Your task to perform on an android device: change alarm snooze length Image 0: 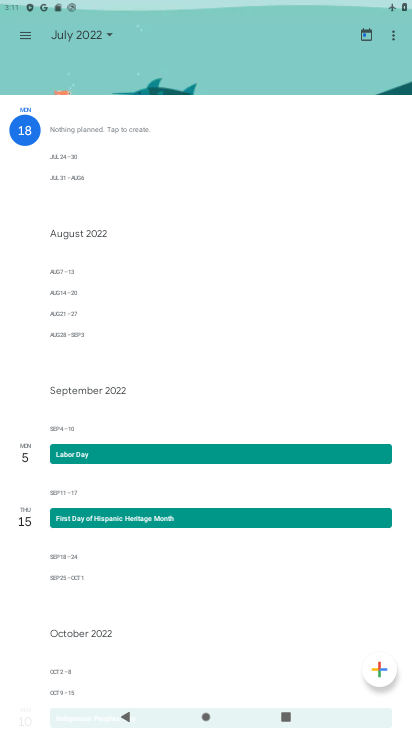
Step 0: press home button
Your task to perform on an android device: change alarm snooze length Image 1: 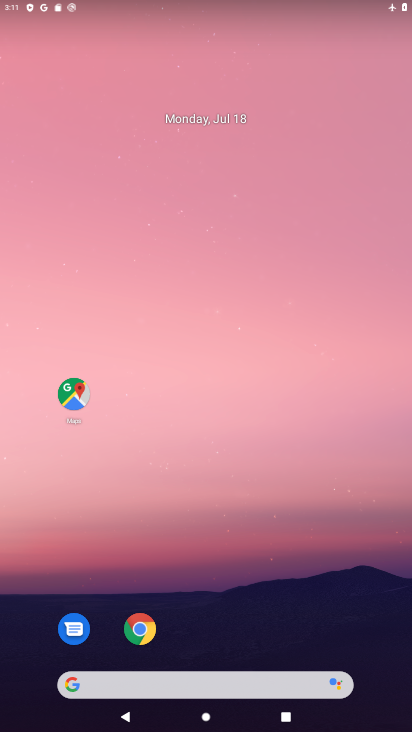
Step 1: drag from (204, 653) to (180, 150)
Your task to perform on an android device: change alarm snooze length Image 2: 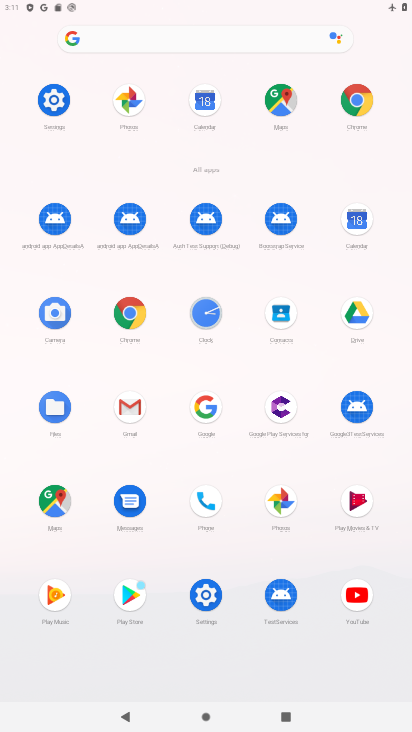
Step 2: click (209, 308)
Your task to perform on an android device: change alarm snooze length Image 3: 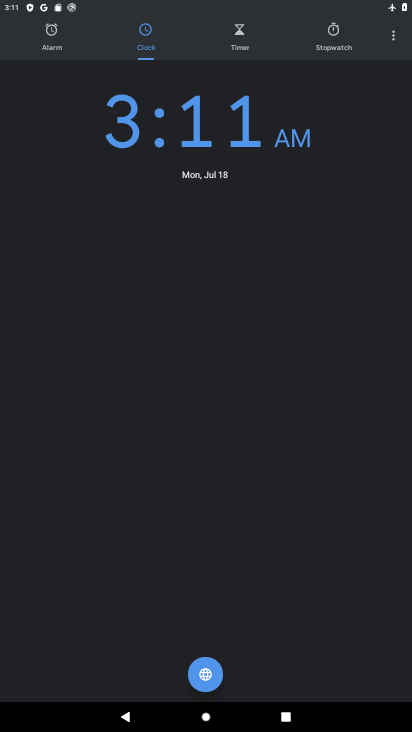
Step 3: click (392, 43)
Your task to perform on an android device: change alarm snooze length Image 4: 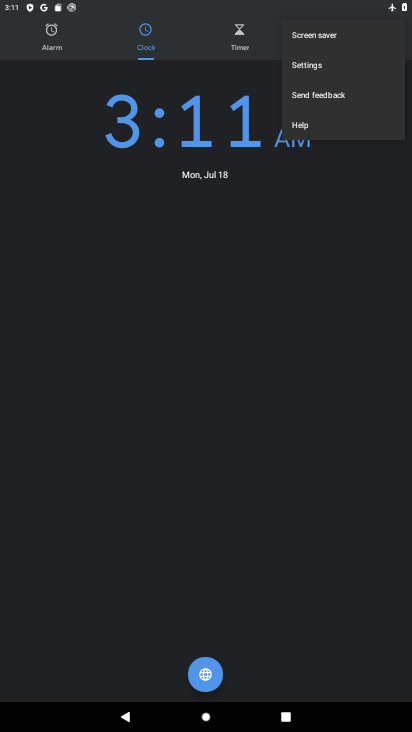
Step 4: click (306, 67)
Your task to perform on an android device: change alarm snooze length Image 5: 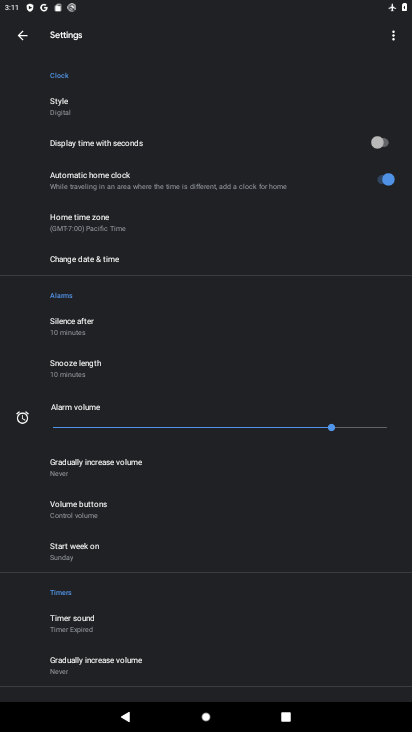
Step 5: click (80, 377)
Your task to perform on an android device: change alarm snooze length Image 6: 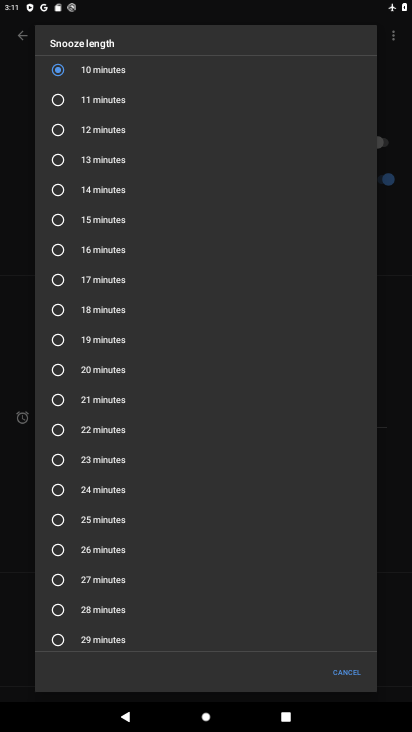
Step 6: click (55, 106)
Your task to perform on an android device: change alarm snooze length Image 7: 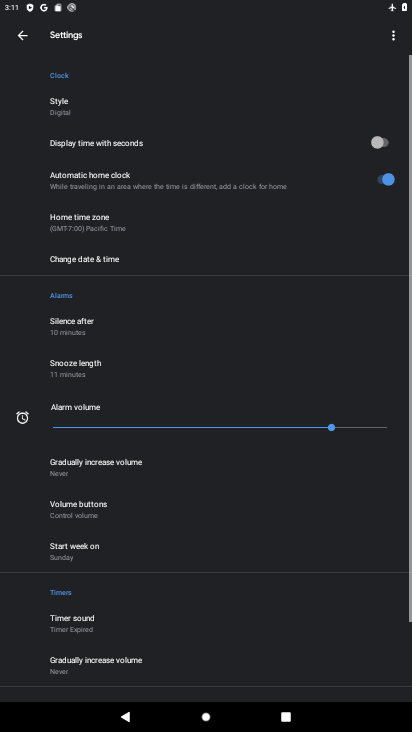
Step 7: click (58, 102)
Your task to perform on an android device: change alarm snooze length Image 8: 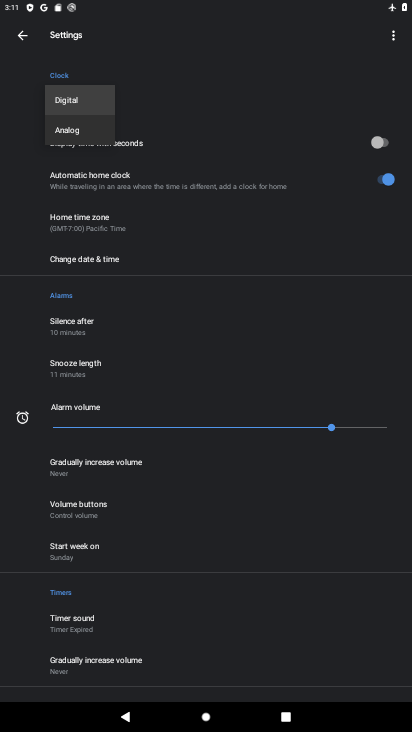
Step 8: task complete